Your task to perform on an android device: Search for vegetarian restaurants on Maps Image 0: 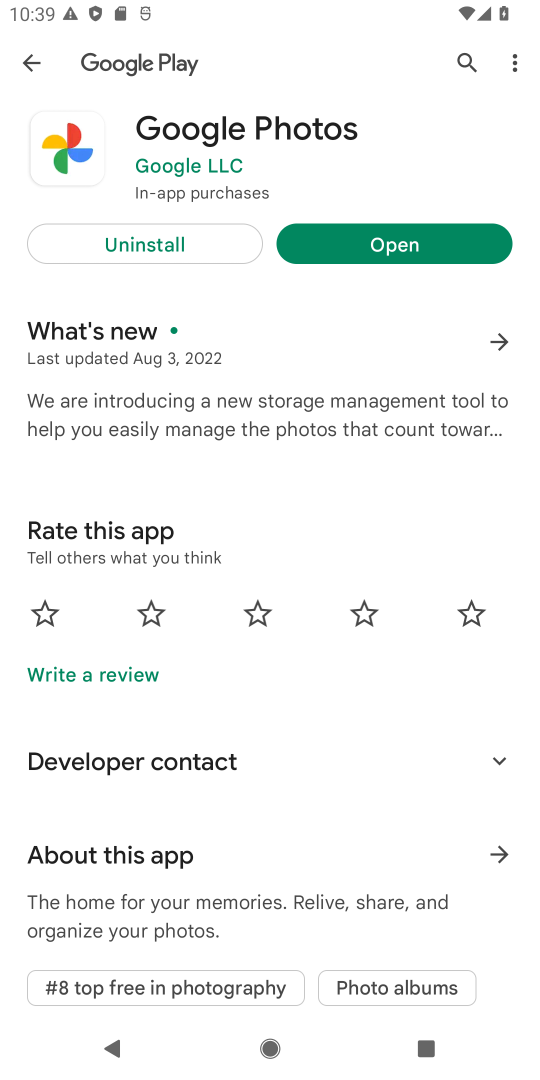
Step 0: press back button
Your task to perform on an android device: Search for vegetarian restaurants on Maps Image 1: 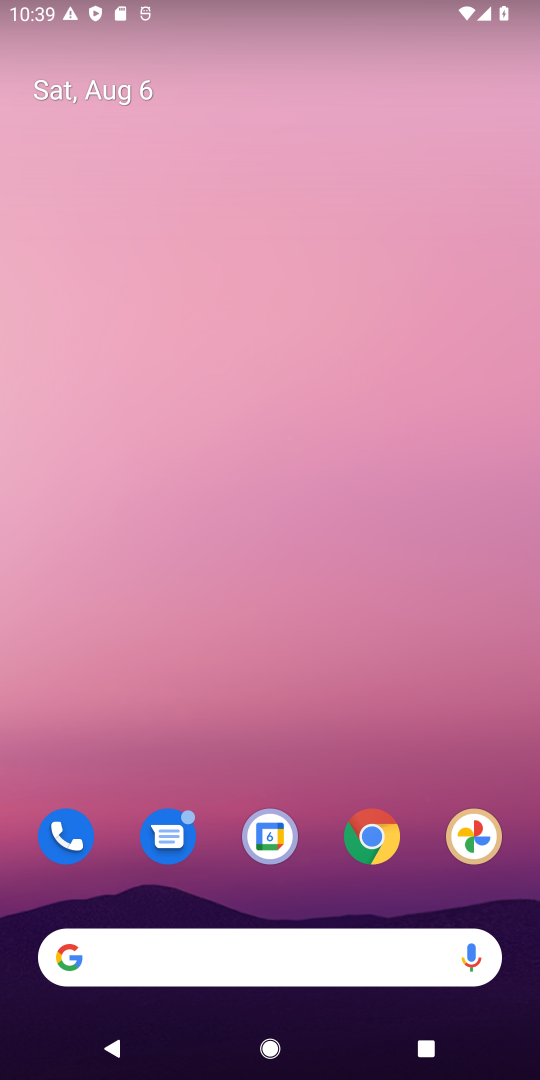
Step 1: drag from (314, 895) to (347, 141)
Your task to perform on an android device: Search for vegetarian restaurants on Maps Image 2: 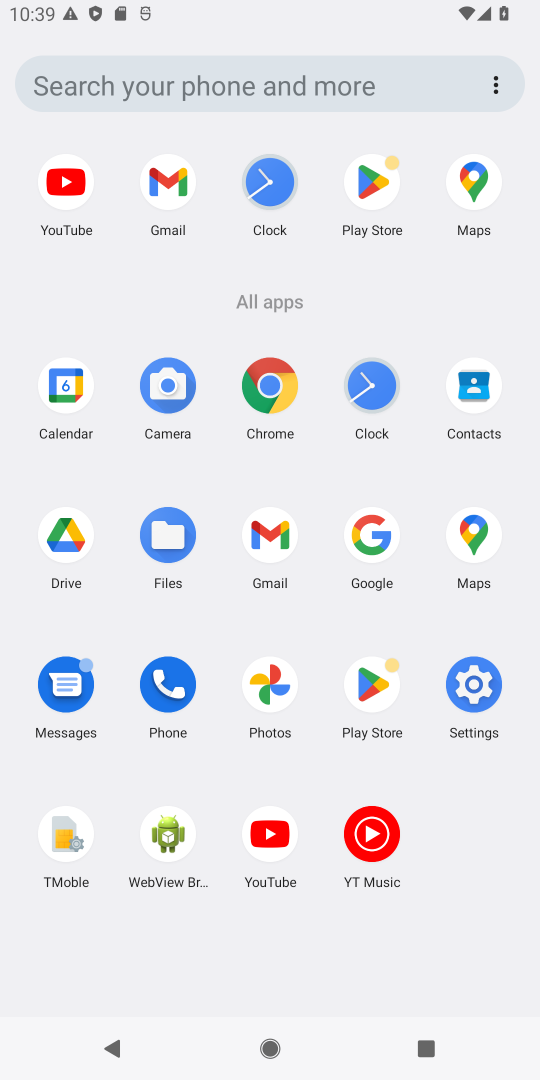
Step 2: click (477, 548)
Your task to perform on an android device: Search for vegetarian restaurants on Maps Image 3: 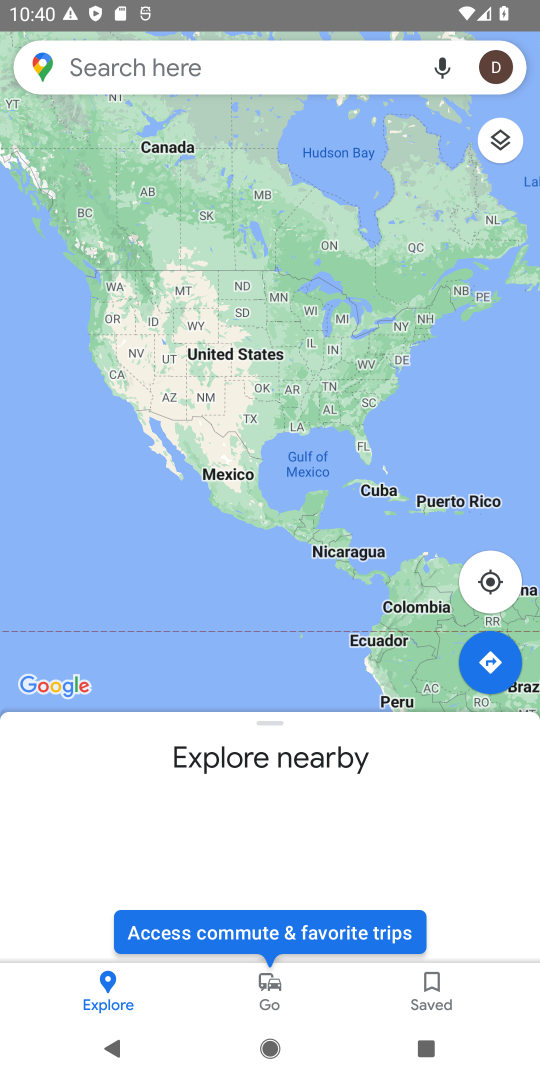
Step 3: click (148, 70)
Your task to perform on an android device: Search for vegetarian restaurants on Maps Image 4: 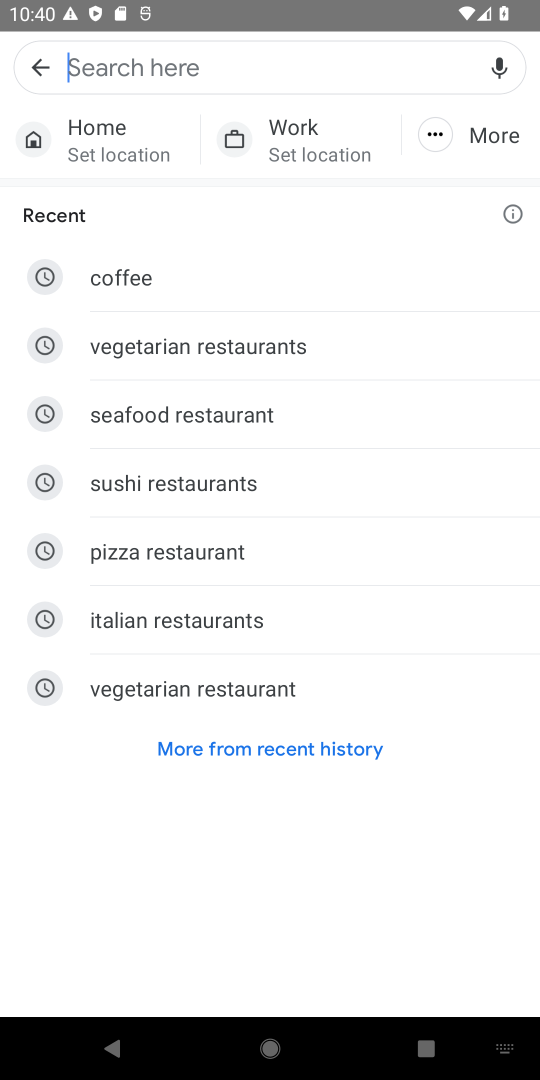
Step 4: type "vegetarian restaurants"
Your task to perform on an android device: Search for vegetarian restaurants on Maps Image 5: 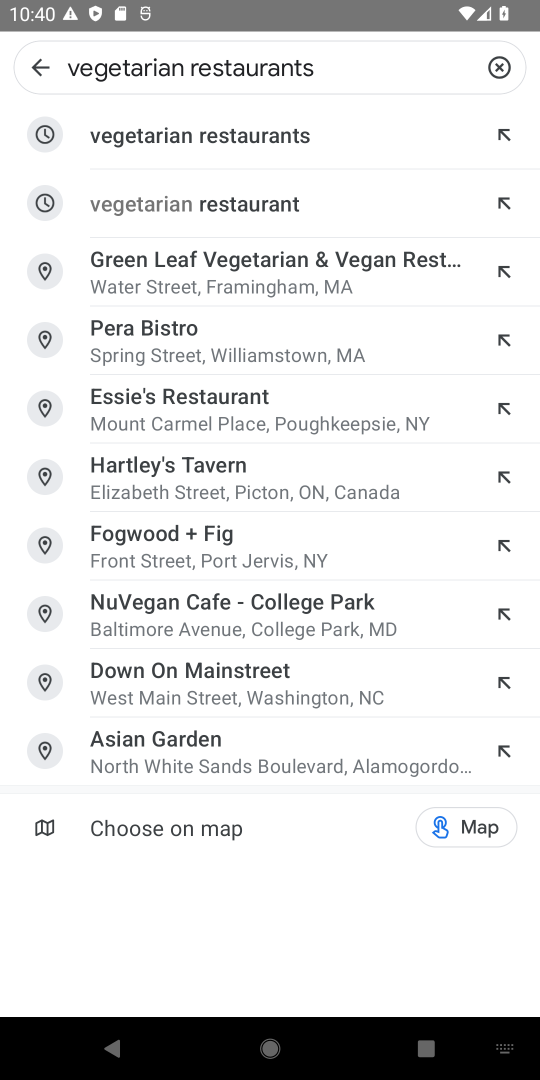
Step 5: click (221, 146)
Your task to perform on an android device: Search for vegetarian restaurants on Maps Image 6: 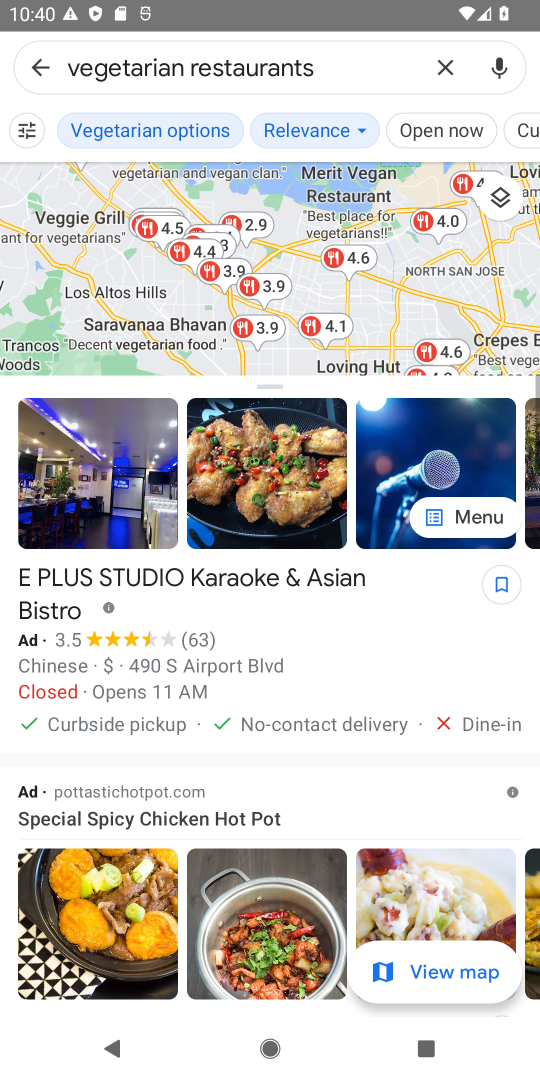
Step 6: task complete